Your task to perform on an android device: turn off notifications settings in the gmail app Image 0: 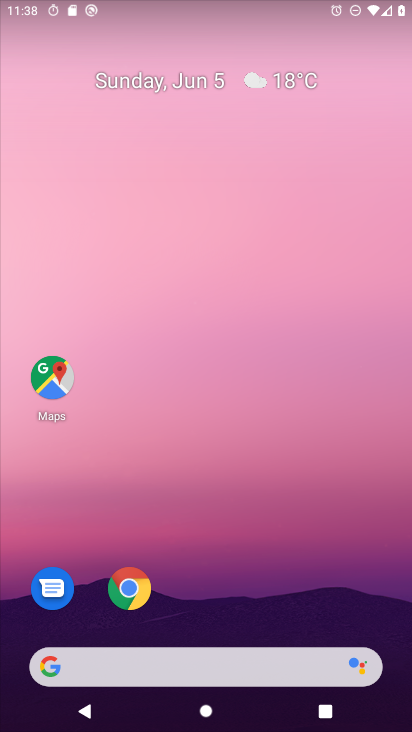
Step 0: drag from (360, 617) to (359, 278)
Your task to perform on an android device: turn off notifications settings in the gmail app Image 1: 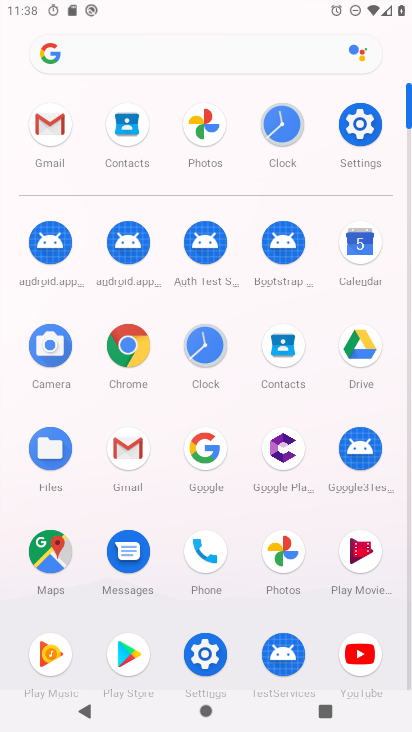
Step 1: click (137, 446)
Your task to perform on an android device: turn off notifications settings in the gmail app Image 2: 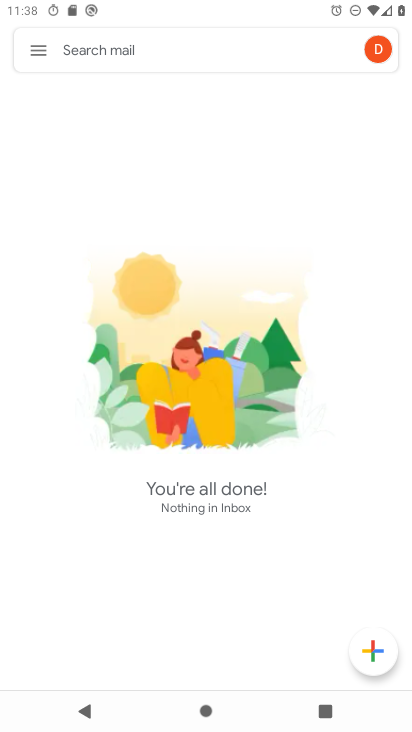
Step 2: click (43, 57)
Your task to perform on an android device: turn off notifications settings in the gmail app Image 3: 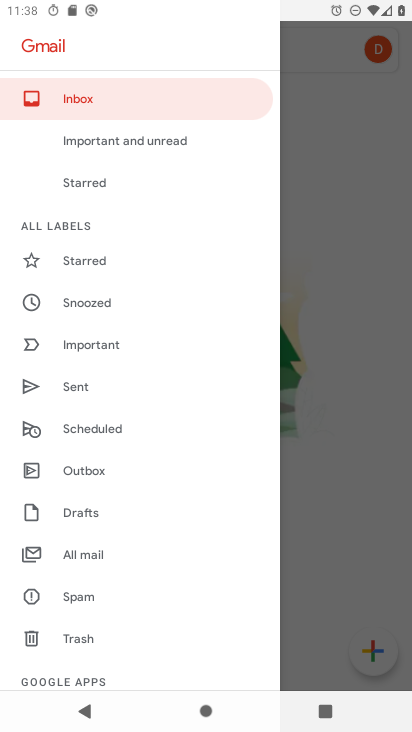
Step 3: drag from (200, 556) to (219, 402)
Your task to perform on an android device: turn off notifications settings in the gmail app Image 4: 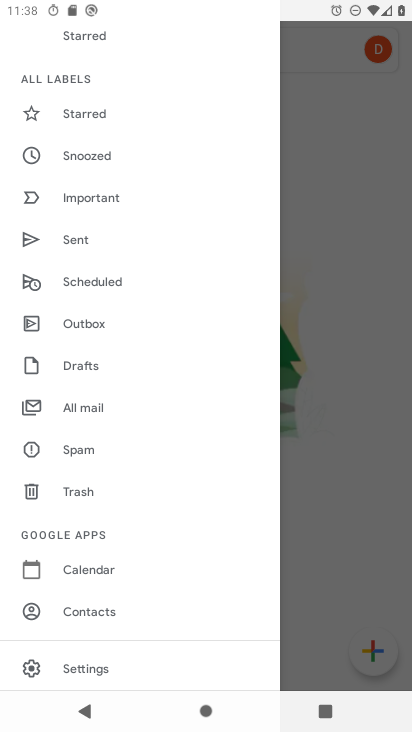
Step 4: drag from (221, 554) to (227, 401)
Your task to perform on an android device: turn off notifications settings in the gmail app Image 5: 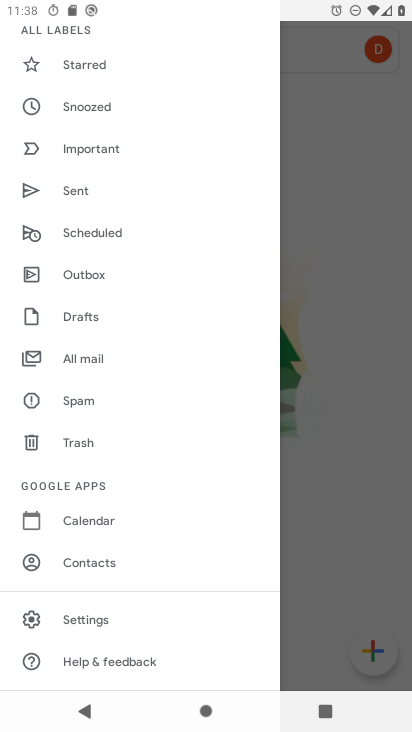
Step 5: click (113, 621)
Your task to perform on an android device: turn off notifications settings in the gmail app Image 6: 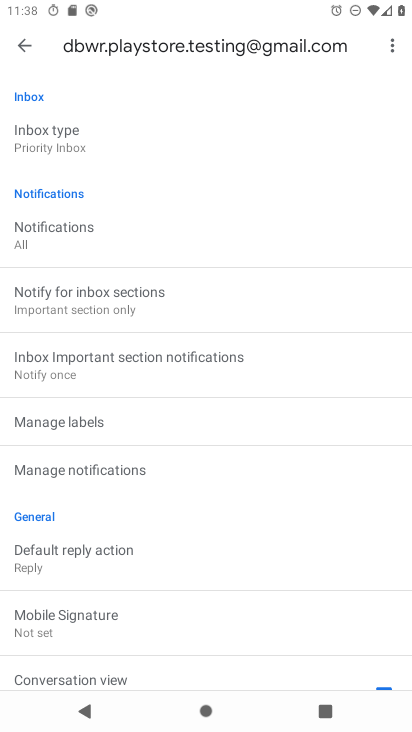
Step 6: drag from (304, 236) to (320, 371)
Your task to perform on an android device: turn off notifications settings in the gmail app Image 7: 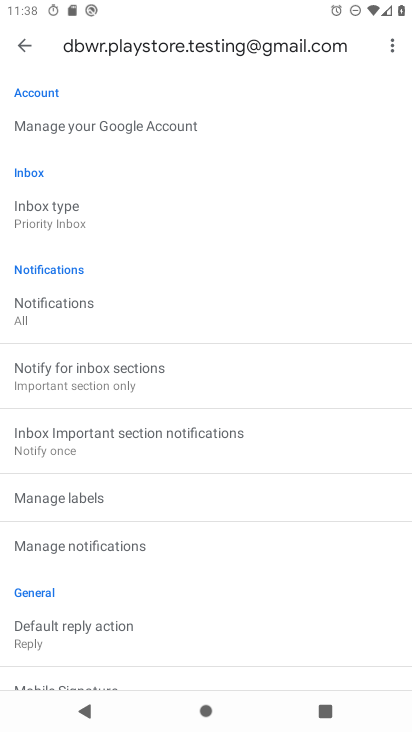
Step 7: drag from (306, 300) to (308, 445)
Your task to perform on an android device: turn off notifications settings in the gmail app Image 8: 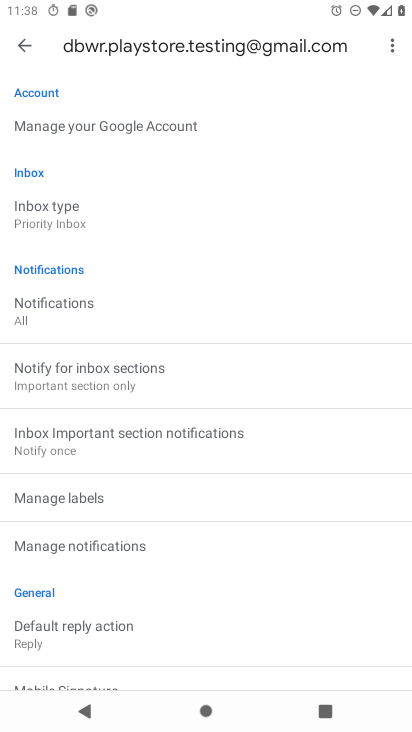
Step 8: drag from (320, 508) to (325, 361)
Your task to perform on an android device: turn off notifications settings in the gmail app Image 9: 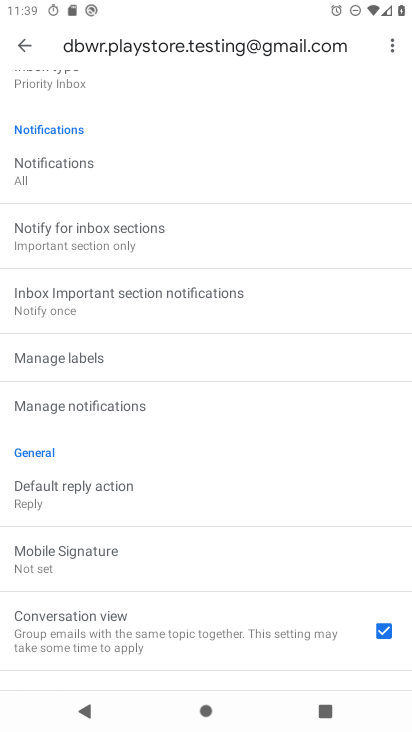
Step 9: click (134, 416)
Your task to perform on an android device: turn off notifications settings in the gmail app Image 10: 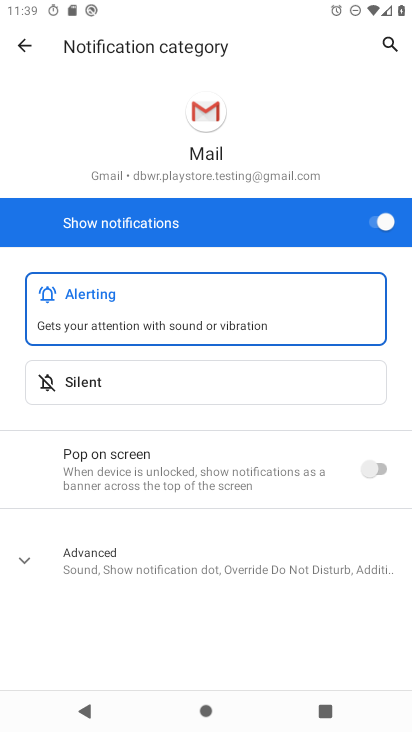
Step 10: click (372, 220)
Your task to perform on an android device: turn off notifications settings in the gmail app Image 11: 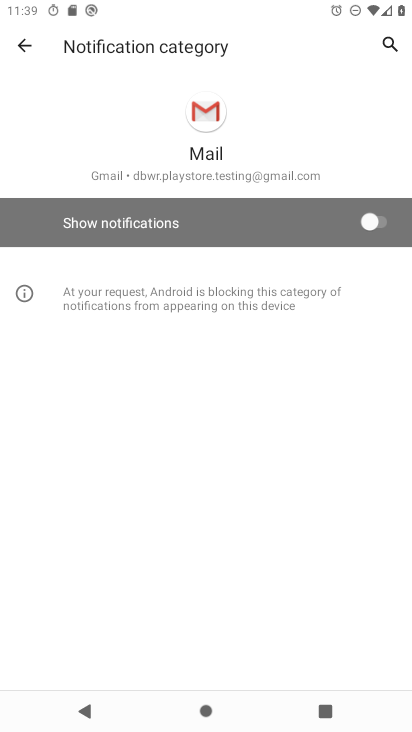
Step 11: task complete